Your task to perform on an android device: Show me popular videos on Youtube Image 0: 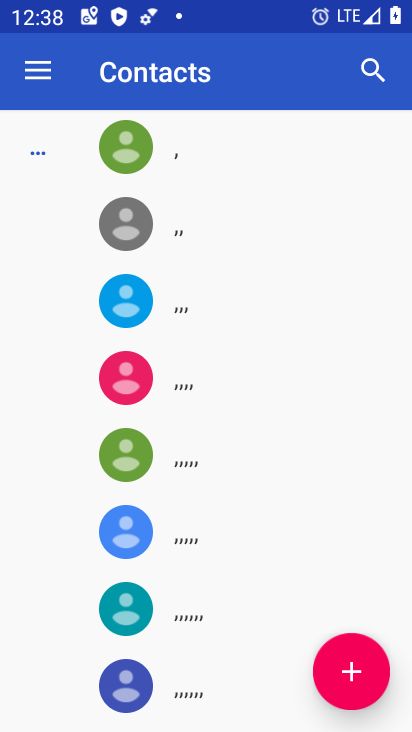
Step 0: press home button
Your task to perform on an android device: Show me popular videos on Youtube Image 1: 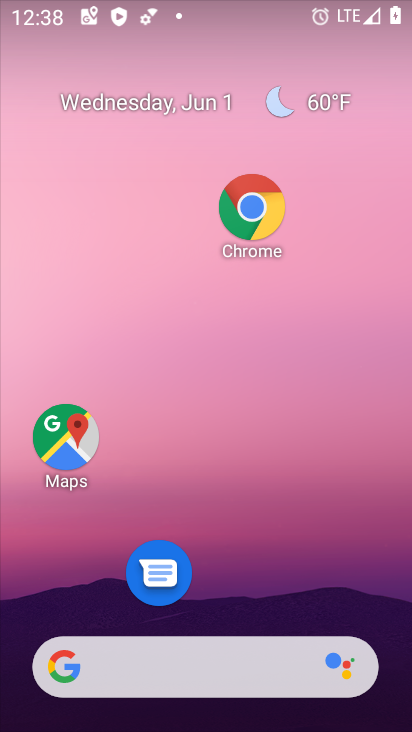
Step 1: drag from (223, 602) to (186, 123)
Your task to perform on an android device: Show me popular videos on Youtube Image 2: 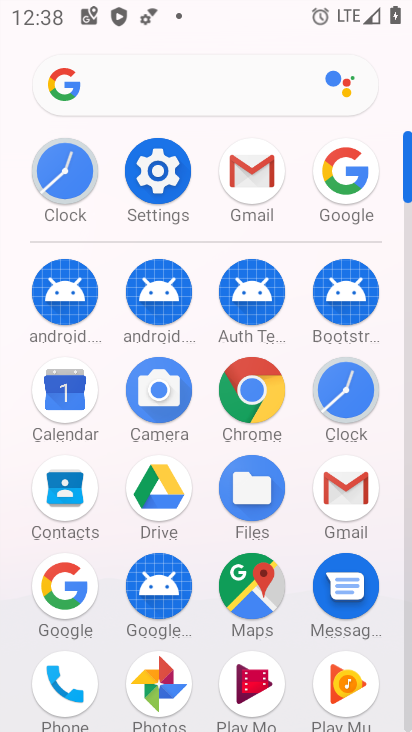
Step 2: drag from (269, 629) to (279, 234)
Your task to perform on an android device: Show me popular videos on Youtube Image 3: 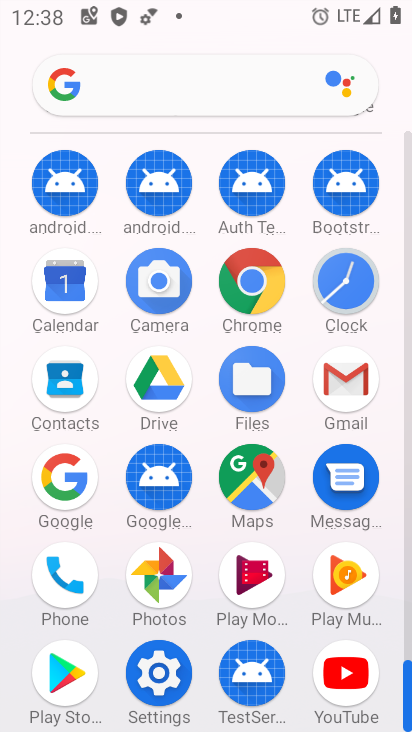
Step 3: click (336, 663)
Your task to perform on an android device: Show me popular videos on Youtube Image 4: 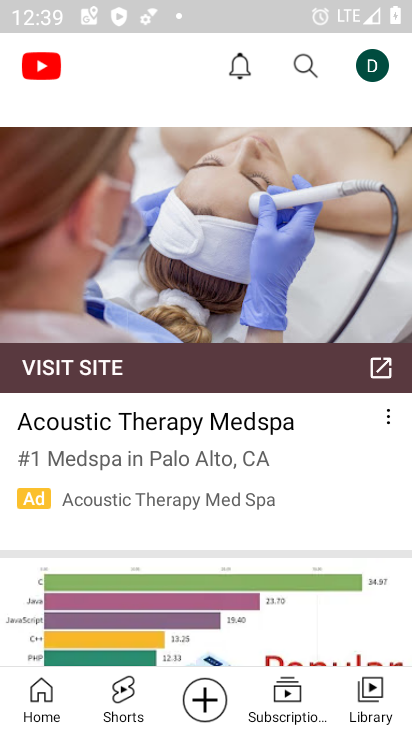
Step 4: click (299, 60)
Your task to perform on an android device: Show me popular videos on Youtube Image 5: 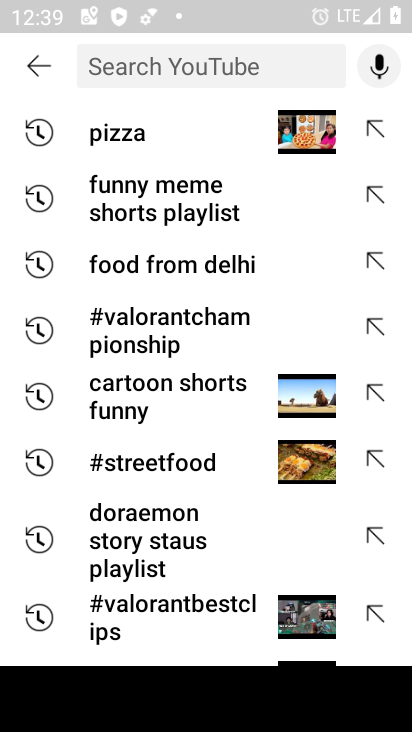
Step 5: type "popular videos"
Your task to perform on an android device: Show me popular videos on Youtube Image 6: 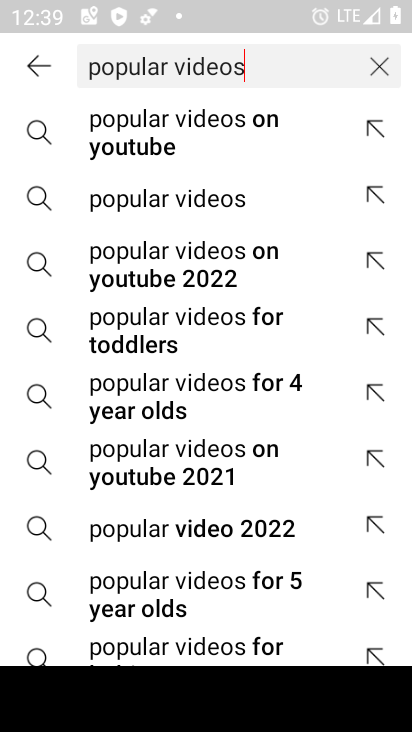
Step 6: click (113, 146)
Your task to perform on an android device: Show me popular videos on Youtube Image 7: 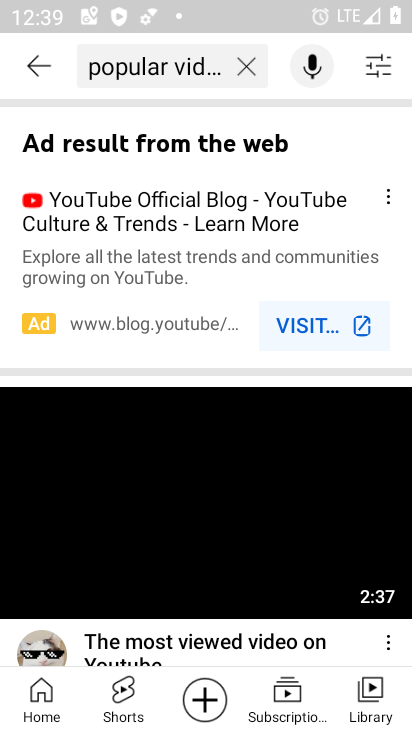
Step 7: task complete